Your task to perform on an android device: Go to Google maps Image 0: 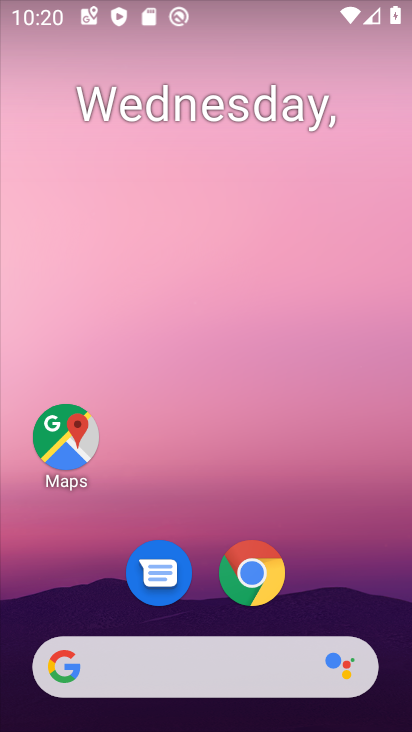
Step 0: click (73, 438)
Your task to perform on an android device: Go to Google maps Image 1: 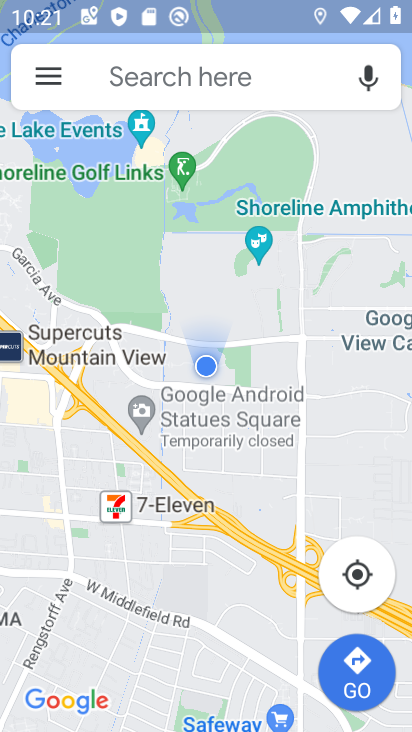
Step 1: task complete